Your task to perform on an android device: Open Wikipedia Image 0: 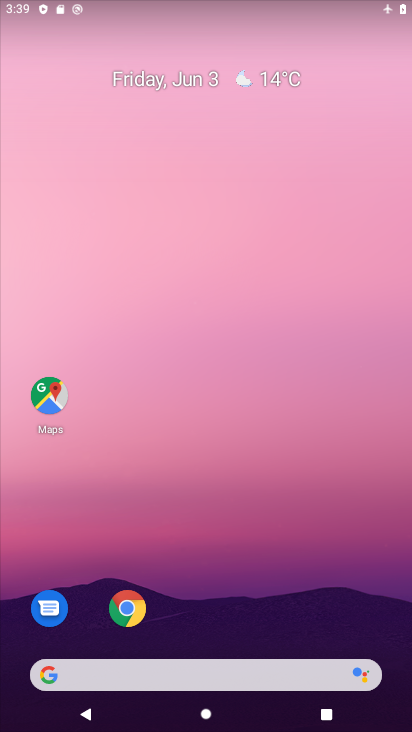
Step 0: click (129, 616)
Your task to perform on an android device: Open Wikipedia Image 1: 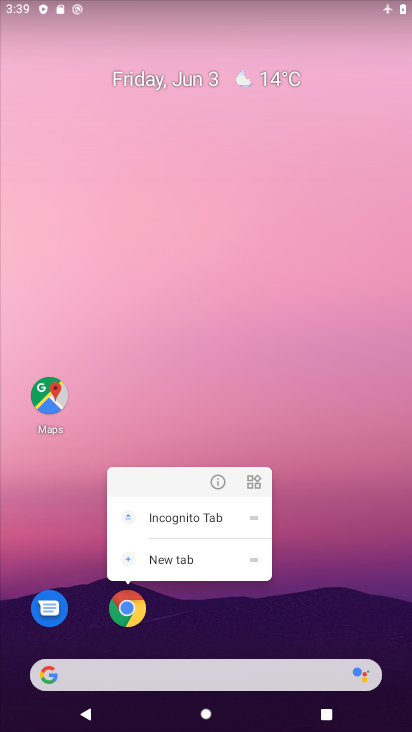
Step 1: click (129, 616)
Your task to perform on an android device: Open Wikipedia Image 2: 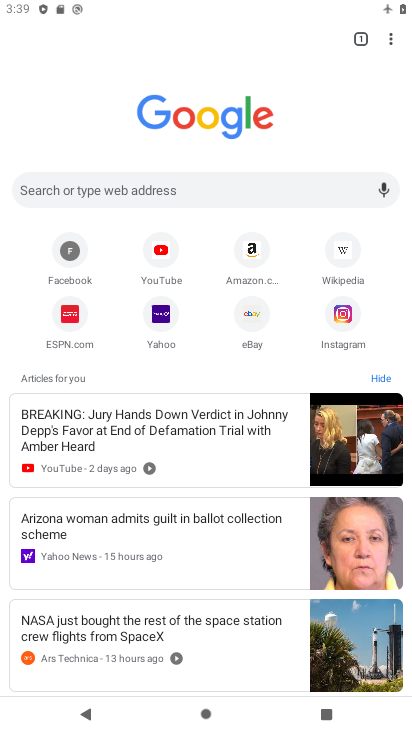
Step 2: click (344, 250)
Your task to perform on an android device: Open Wikipedia Image 3: 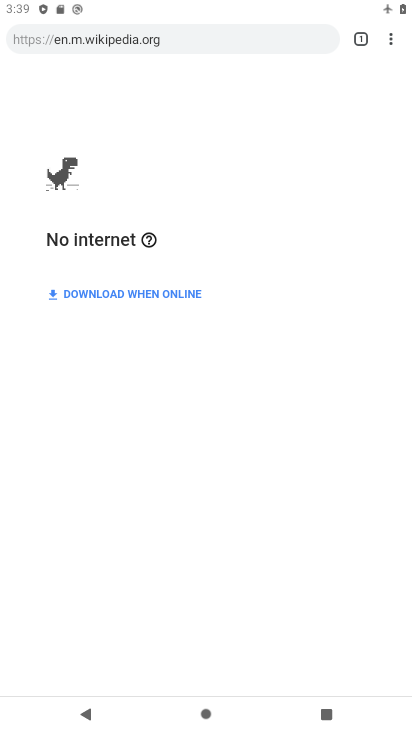
Step 3: task complete